Your task to perform on an android device: change the upload size in google photos Image 0: 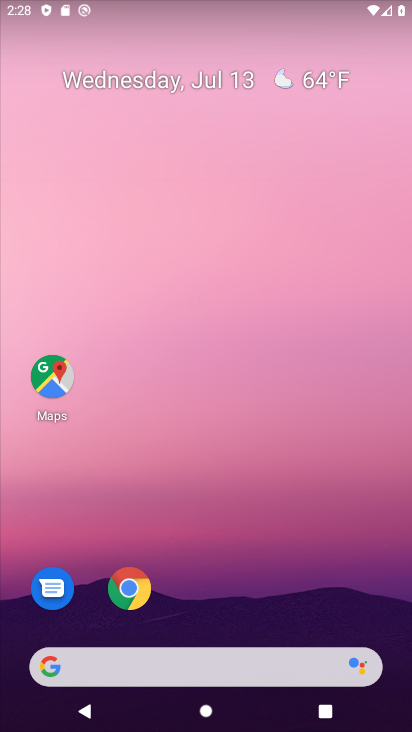
Step 0: drag from (293, 592) to (295, 161)
Your task to perform on an android device: change the upload size in google photos Image 1: 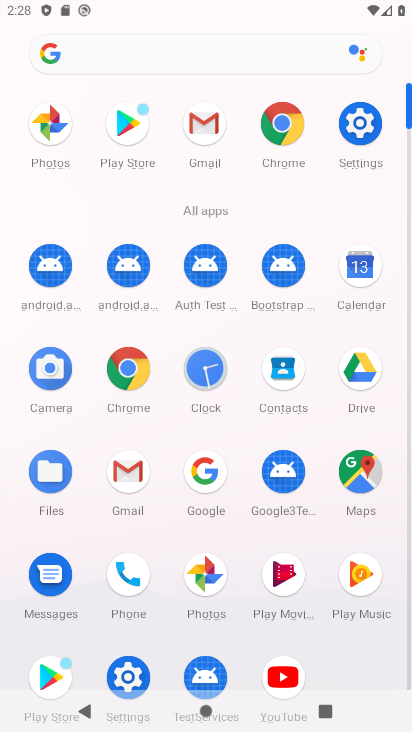
Step 1: click (47, 126)
Your task to perform on an android device: change the upload size in google photos Image 2: 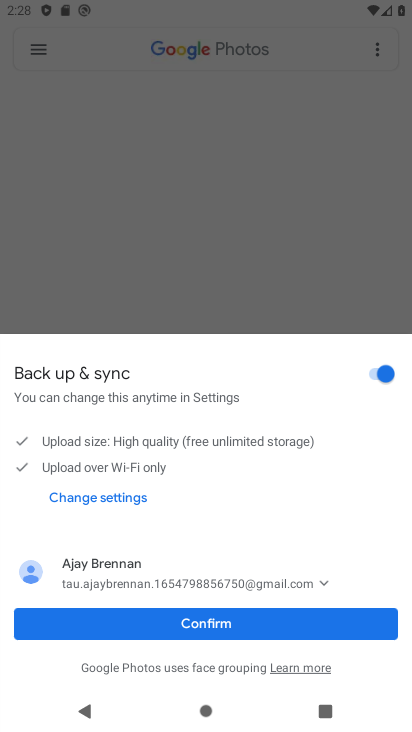
Step 2: click (173, 622)
Your task to perform on an android device: change the upload size in google photos Image 3: 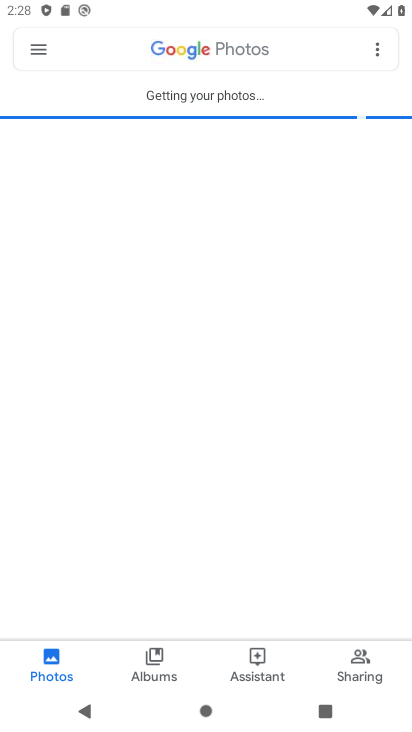
Step 3: click (38, 42)
Your task to perform on an android device: change the upload size in google photos Image 4: 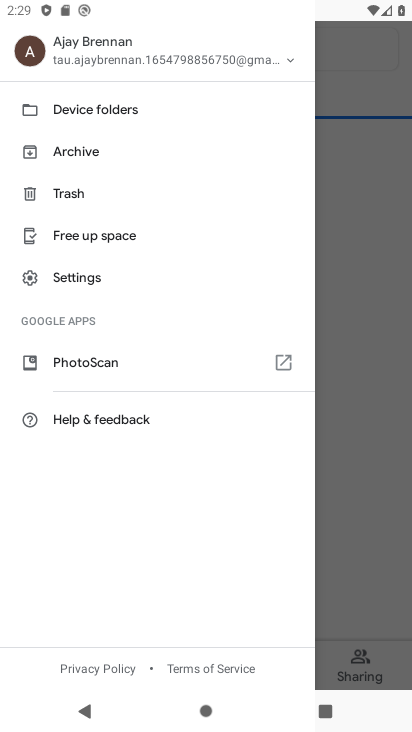
Step 4: click (66, 287)
Your task to perform on an android device: change the upload size in google photos Image 5: 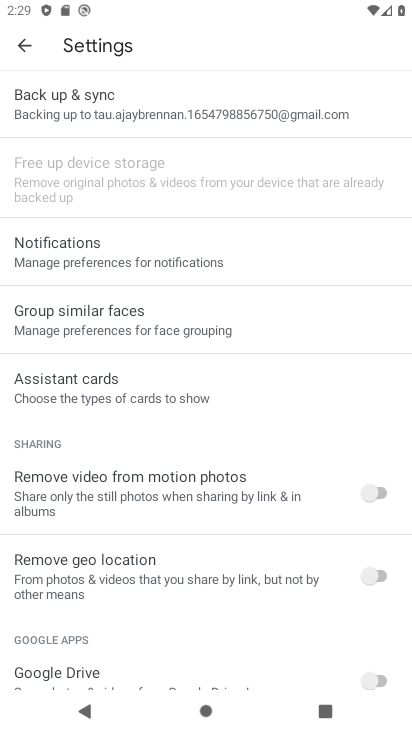
Step 5: click (122, 102)
Your task to perform on an android device: change the upload size in google photos Image 6: 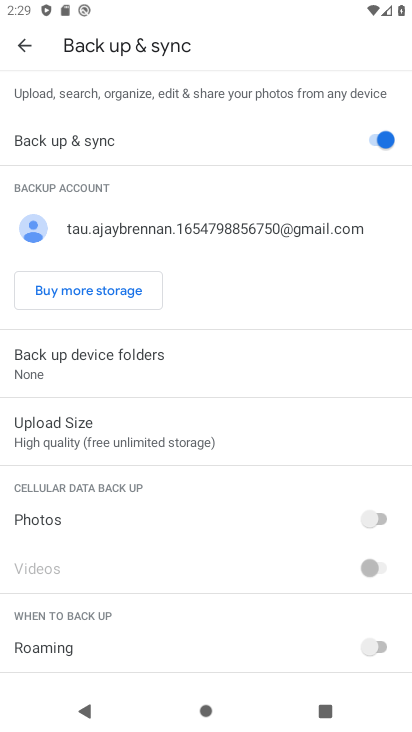
Step 6: click (83, 445)
Your task to perform on an android device: change the upload size in google photos Image 7: 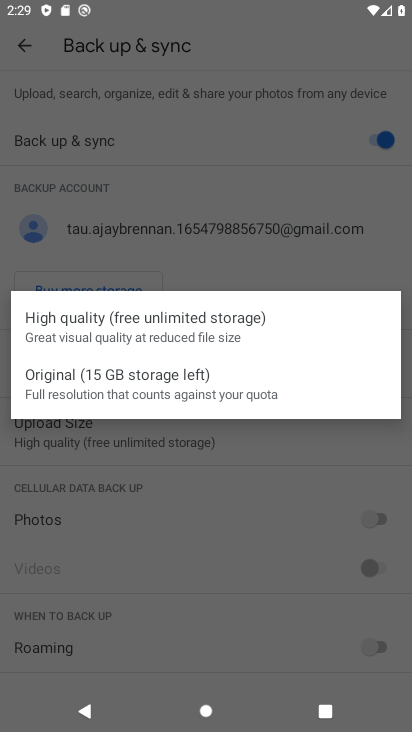
Step 7: click (109, 388)
Your task to perform on an android device: change the upload size in google photos Image 8: 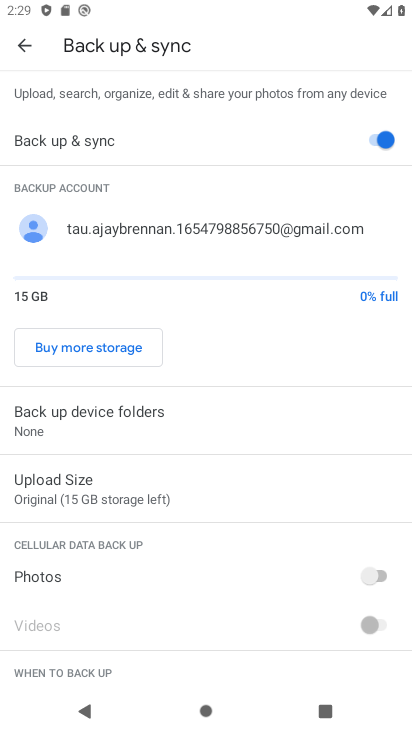
Step 8: task complete